Your task to perform on an android device: change your default location settings in chrome Image 0: 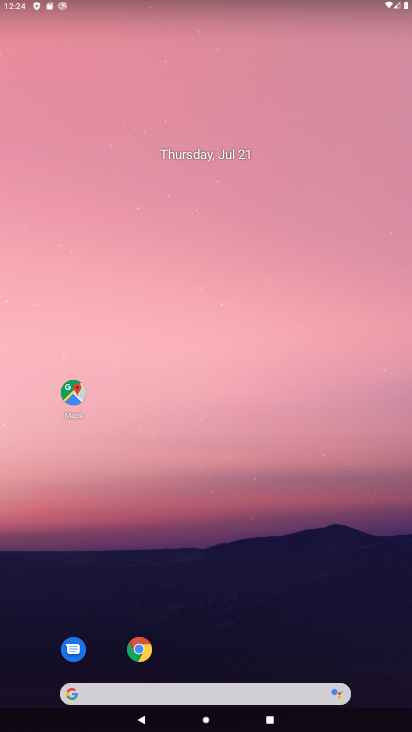
Step 0: click (134, 624)
Your task to perform on an android device: change your default location settings in chrome Image 1: 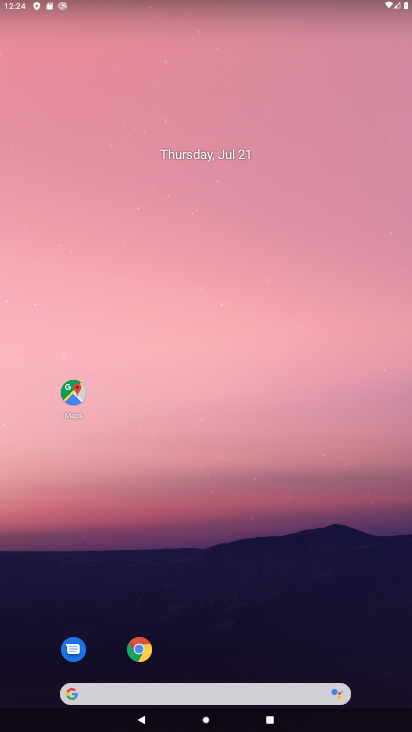
Step 1: click (133, 648)
Your task to perform on an android device: change your default location settings in chrome Image 2: 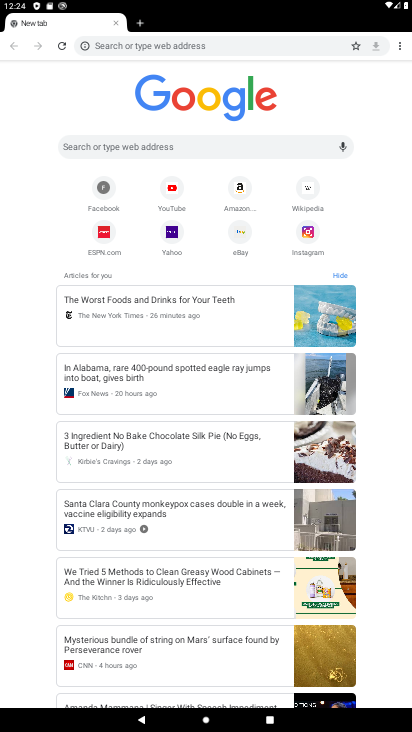
Step 2: click (396, 37)
Your task to perform on an android device: change your default location settings in chrome Image 3: 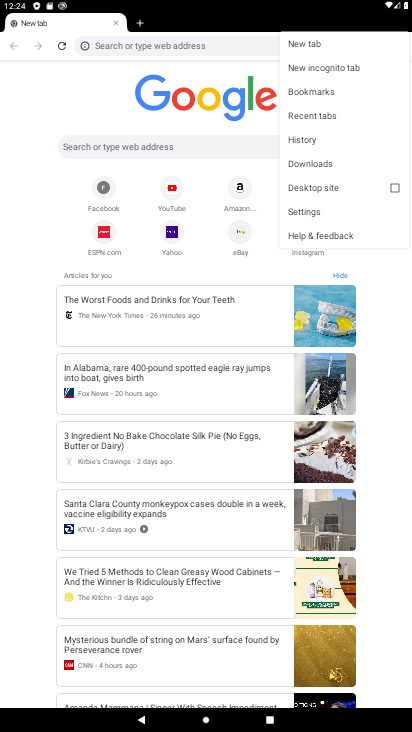
Step 3: click (328, 209)
Your task to perform on an android device: change your default location settings in chrome Image 4: 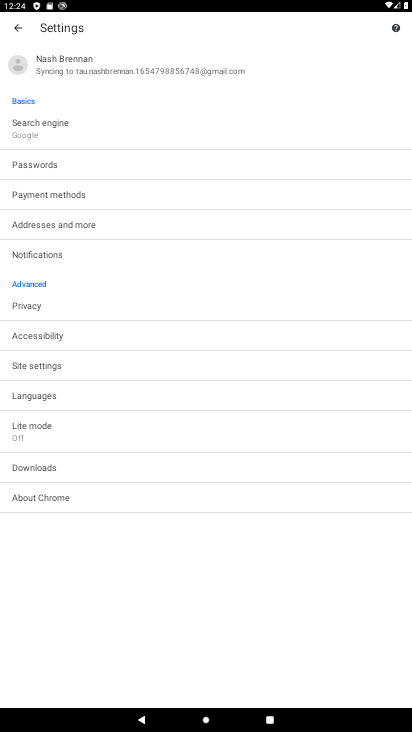
Step 4: click (101, 221)
Your task to perform on an android device: change your default location settings in chrome Image 5: 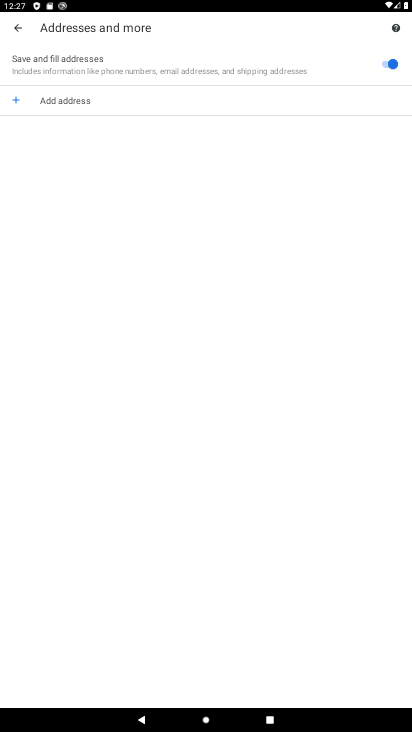
Step 5: click (9, 21)
Your task to perform on an android device: change your default location settings in chrome Image 6: 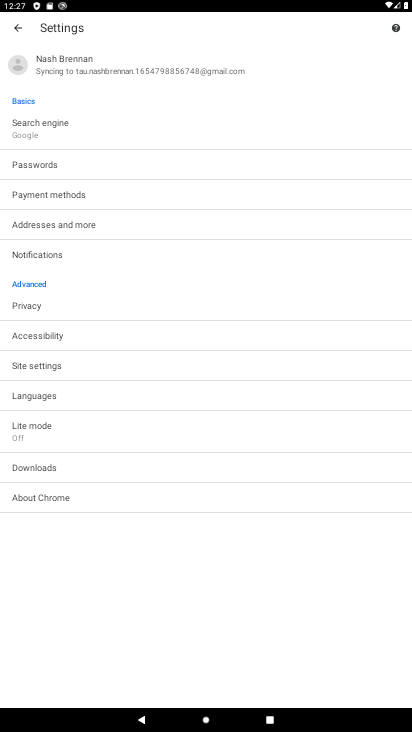
Step 6: click (201, 222)
Your task to perform on an android device: change your default location settings in chrome Image 7: 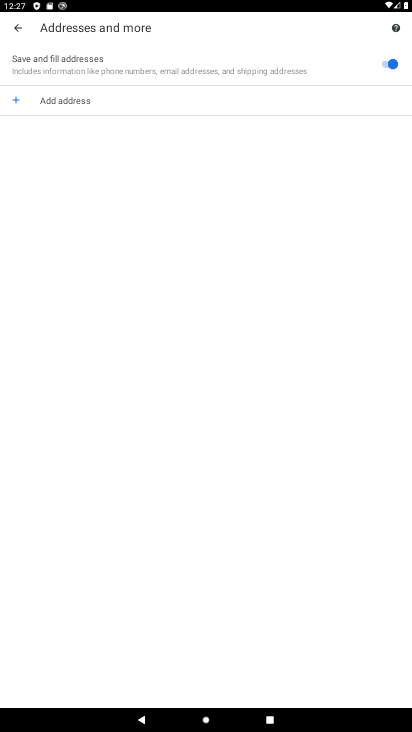
Step 7: task complete